Your task to perform on an android device: clear all cookies in the chrome app Image 0: 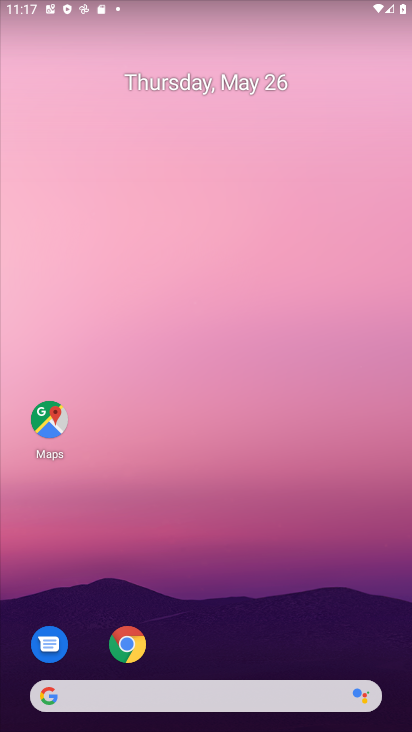
Step 0: drag from (344, 650) to (259, 8)
Your task to perform on an android device: clear all cookies in the chrome app Image 1: 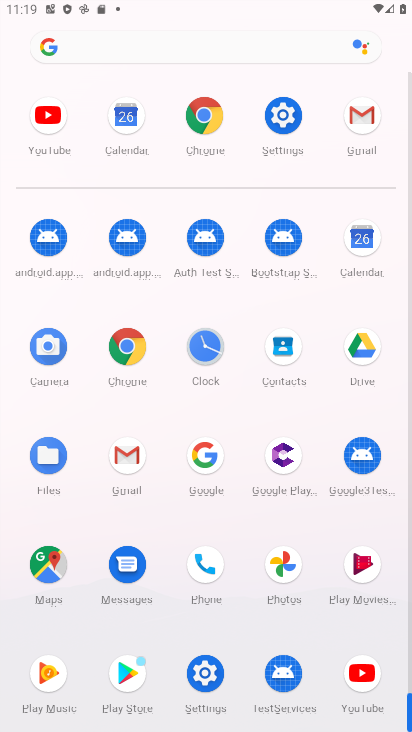
Step 1: click (129, 333)
Your task to perform on an android device: clear all cookies in the chrome app Image 2: 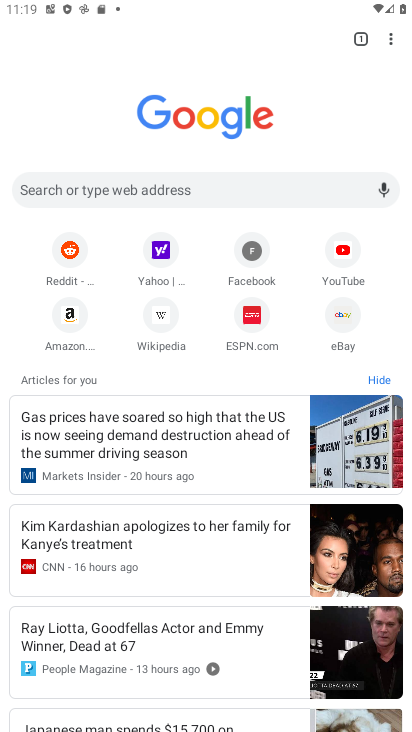
Step 2: click (390, 38)
Your task to perform on an android device: clear all cookies in the chrome app Image 3: 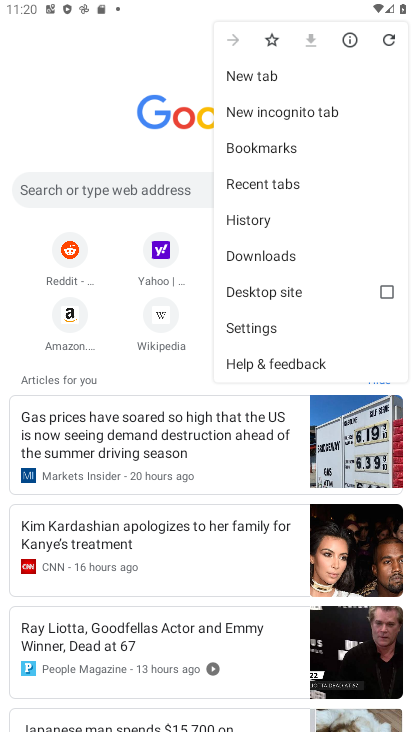
Step 3: click (278, 222)
Your task to perform on an android device: clear all cookies in the chrome app Image 4: 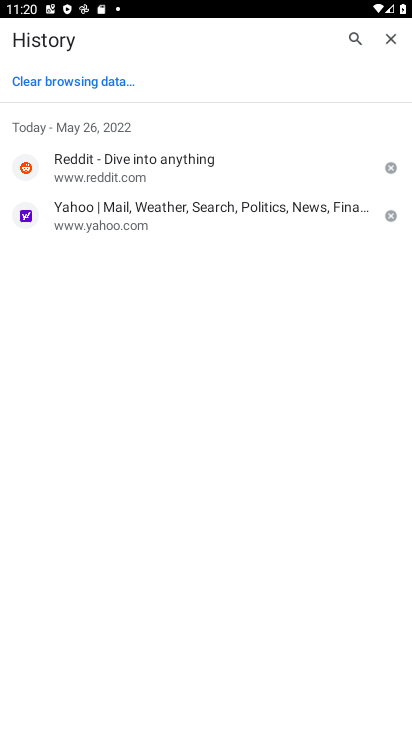
Step 4: click (71, 75)
Your task to perform on an android device: clear all cookies in the chrome app Image 5: 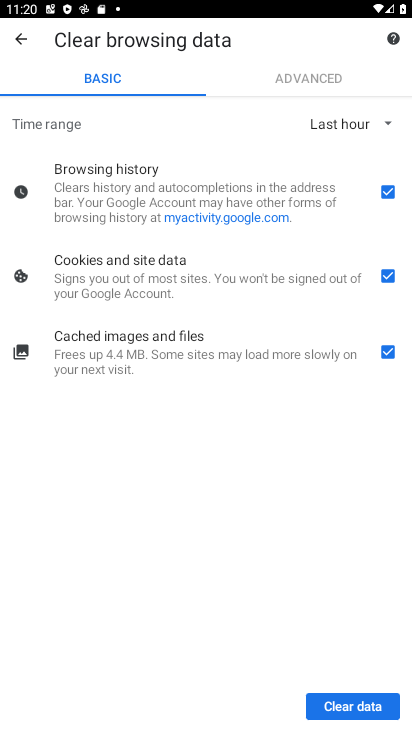
Step 5: click (344, 698)
Your task to perform on an android device: clear all cookies in the chrome app Image 6: 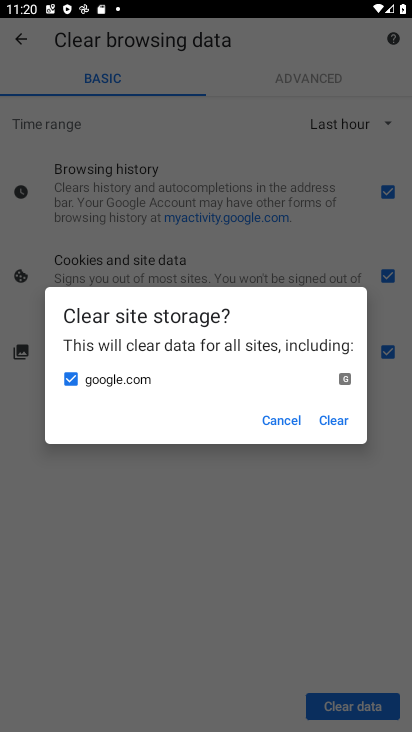
Step 6: click (325, 420)
Your task to perform on an android device: clear all cookies in the chrome app Image 7: 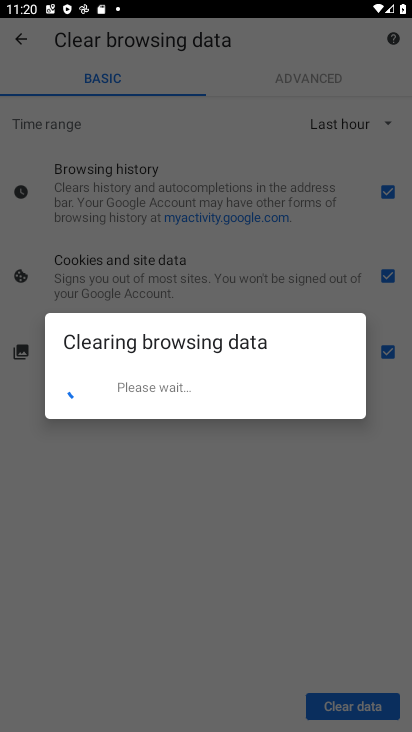
Step 7: task complete